Your task to perform on an android device: Go to wifi settings Image 0: 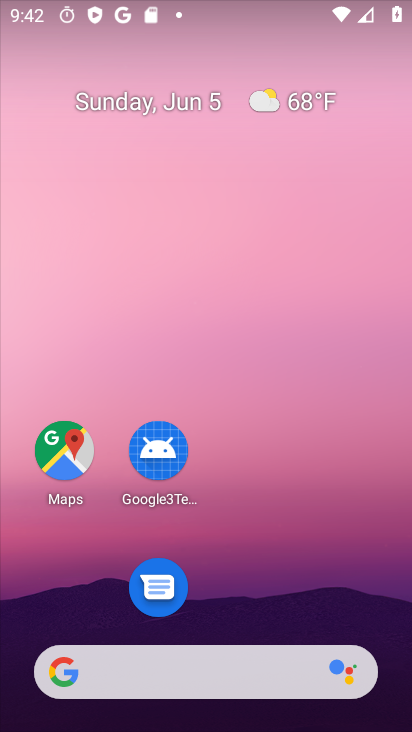
Step 0: drag from (290, 540) to (156, 137)
Your task to perform on an android device: Go to wifi settings Image 1: 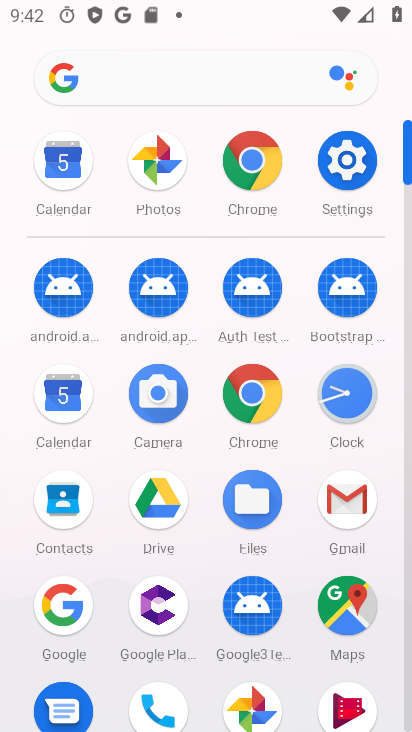
Step 1: click (336, 140)
Your task to perform on an android device: Go to wifi settings Image 2: 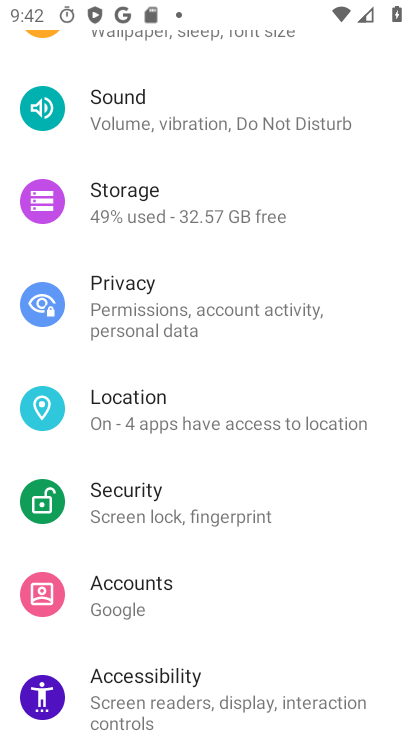
Step 2: click (159, 108)
Your task to perform on an android device: Go to wifi settings Image 3: 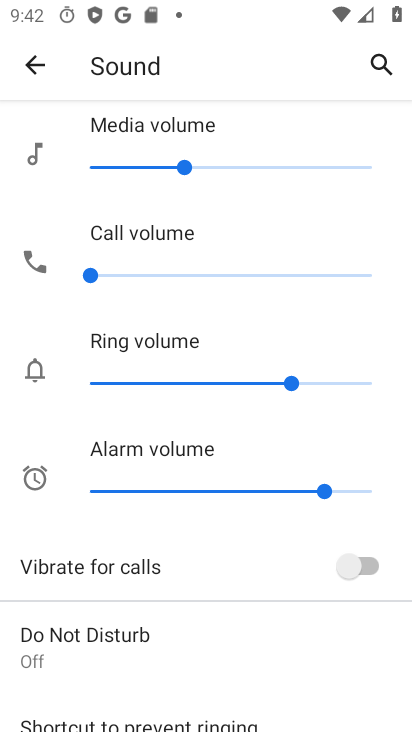
Step 3: click (16, 55)
Your task to perform on an android device: Go to wifi settings Image 4: 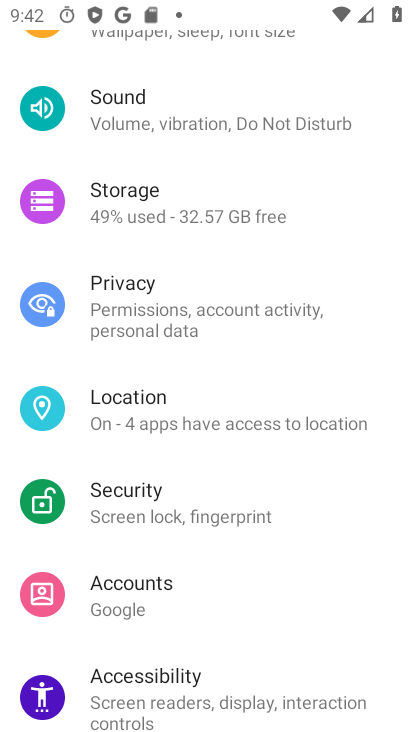
Step 4: drag from (246, 60) to (247, 430)
Your task to perform on an android device: Go to wifi settings Image 5: 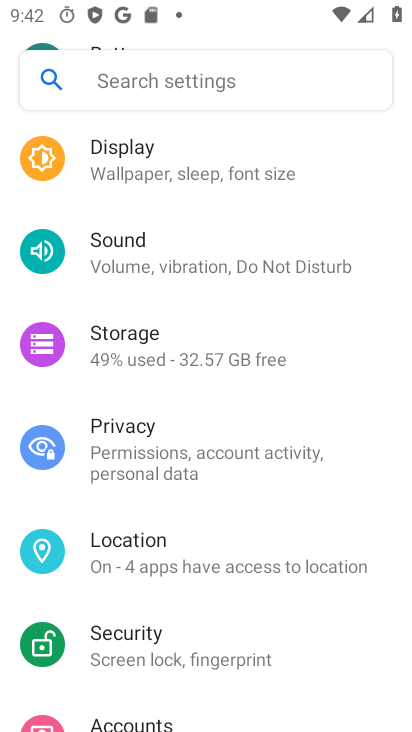
Step 5: drag from (238, 290) to (252, 484)
Your task to perform on an android device: Go to wifi settings Image 6: 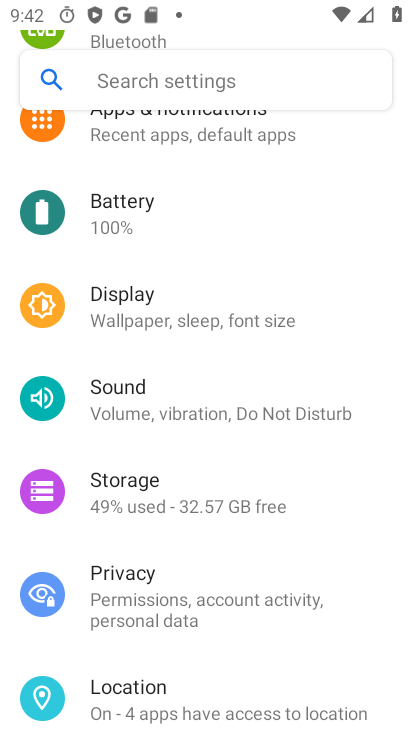
Step 6: drag from (186, 145) to (199, 267)
Your task to perform on an android device: Go to wifi settings Image 7: 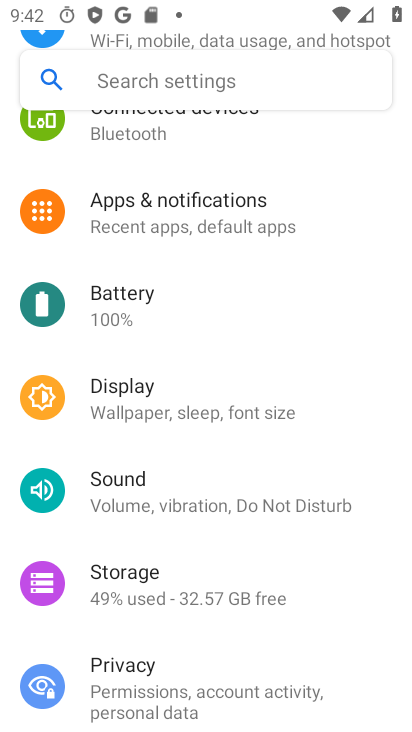
Step 7: drag from (172, 102) to (183, 141)
Your task to perform on an android device: Go to wifi settings Image 8: 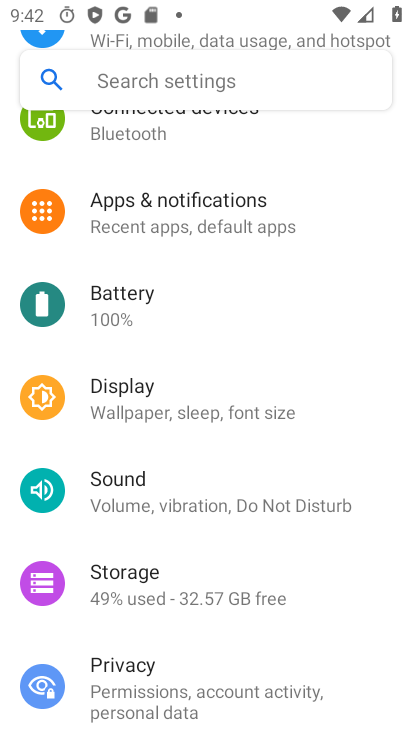
Step 8: drag from (191, 123) to (229, 442)
Your task to perform on an android device: Go to wifi settings Image 9: 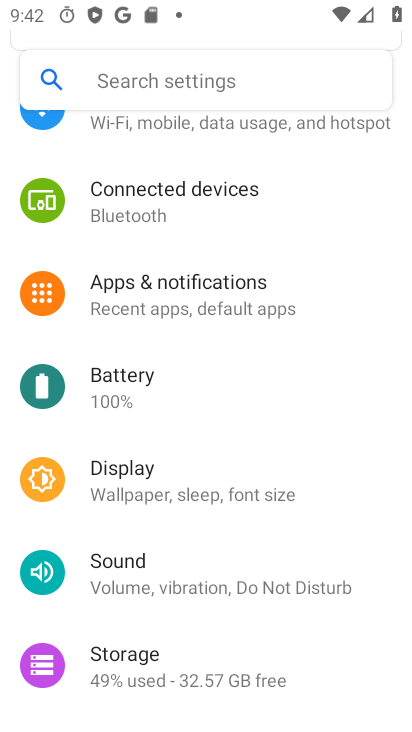
Step 9: drag from (252, 212) to (267, 371)
Your task to perform on an android device: Go to wifi settings Image 10: 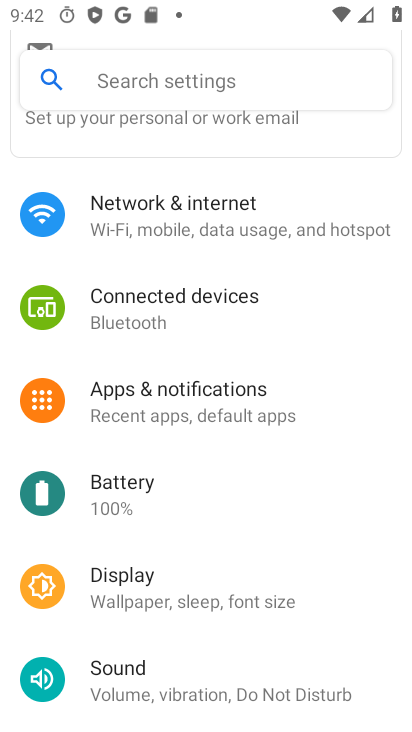
Step 10: click (248, 226)
Your task to perform on an android device: Go to wifi settings Image 11: 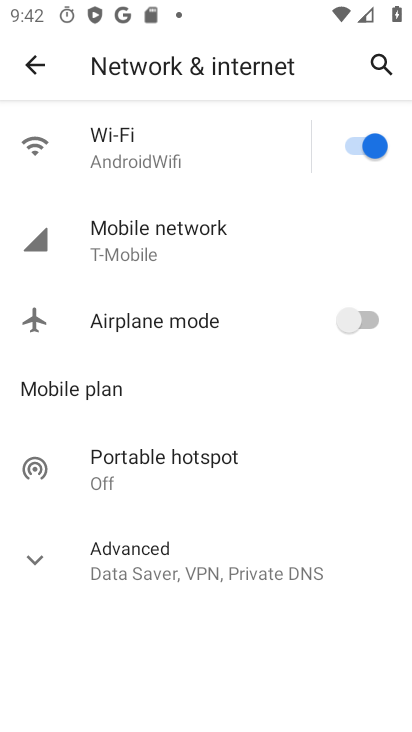
Step 11: click (247, 158)
Your task to perform on an android device: Go to wifi settings Image 12: 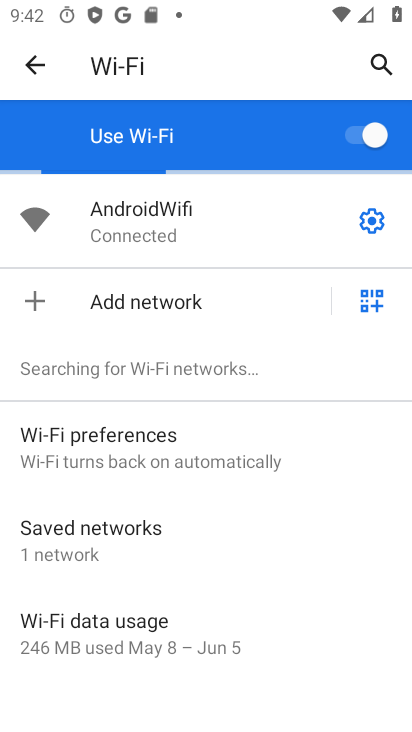
Step 12: task complete